Your task to perform on an android device: Open Youtube and go to "Your channel" Image 0: 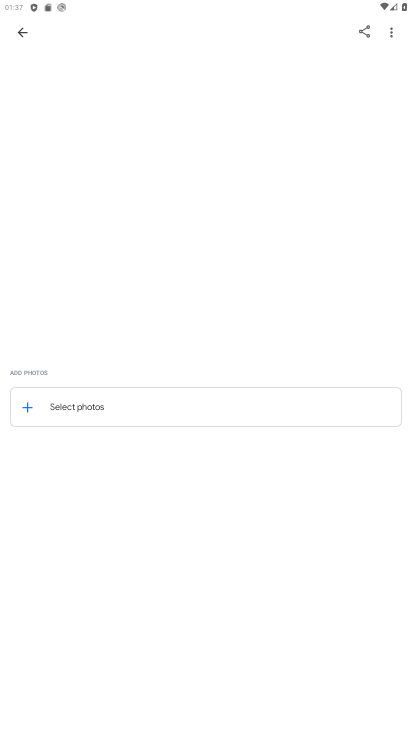
Step 0: press home button
Your task to perform on an android device: Open Youtube and go to "Your channel" Image 1: 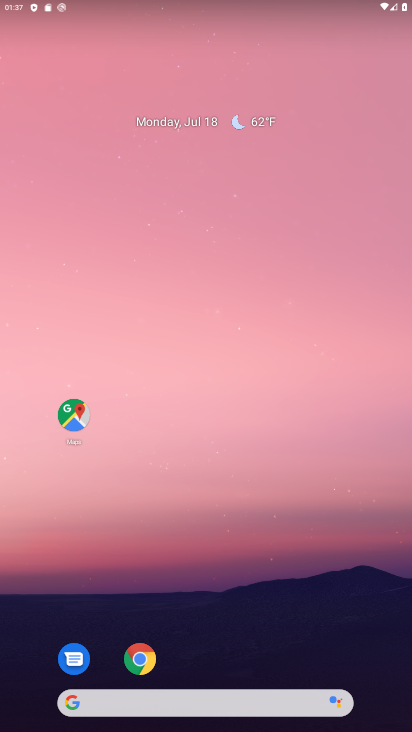
Step 1: drag from (283, 596) to (231, 149)
Your task to perform on an android device: Open Youtube and go to "Your channel" Image 2: 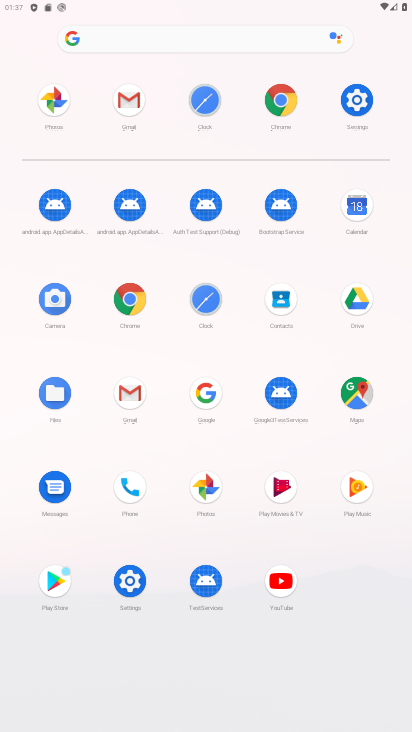
Step 2: click (277, 583)
Your task to perform on an android device: Open Youtube and go to "Your channel" Image 3: 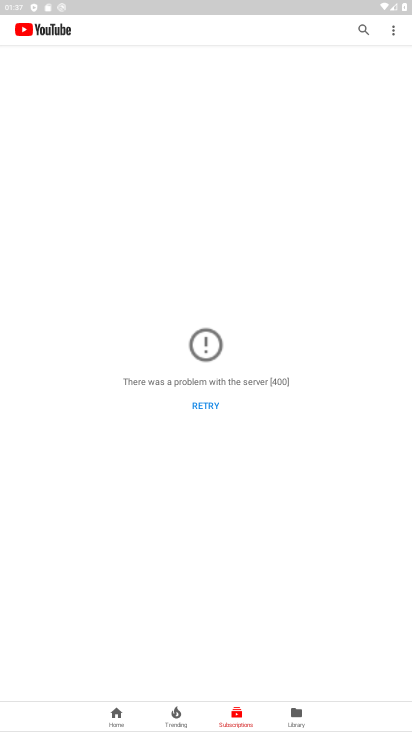
Step 3: click (206, 403)
Your task to perform on an android device: Open Youtube and go to "Your channel" Image 4: 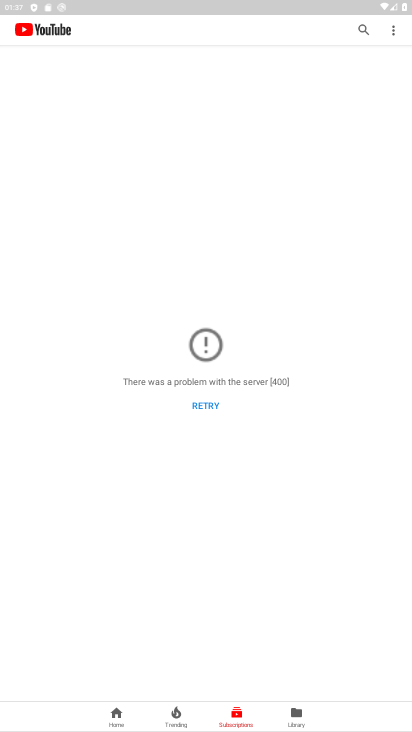
Step 4: task complete